Your task to perform on an android device: Open settings on Google Maps Image 0: 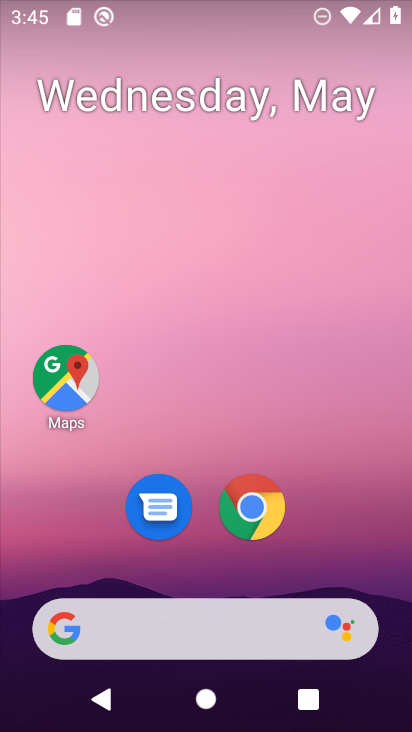
Step 0: click (55, 378)
Your task to perform on an android device: Open settings on Google Maps Image 1: 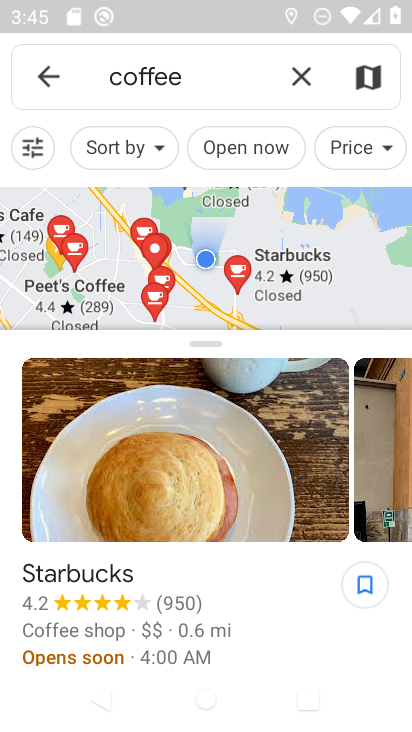
Step 1: click (44, 77)
Your task to perform on an android device: Open settings on Google Maps Image 2: 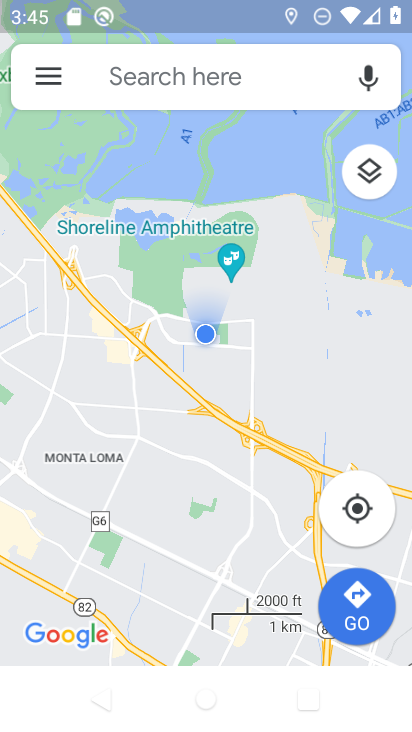
Step 2: click (42, 59)
Your task to perform on an android device: Open settings on Google Maps Image 3: 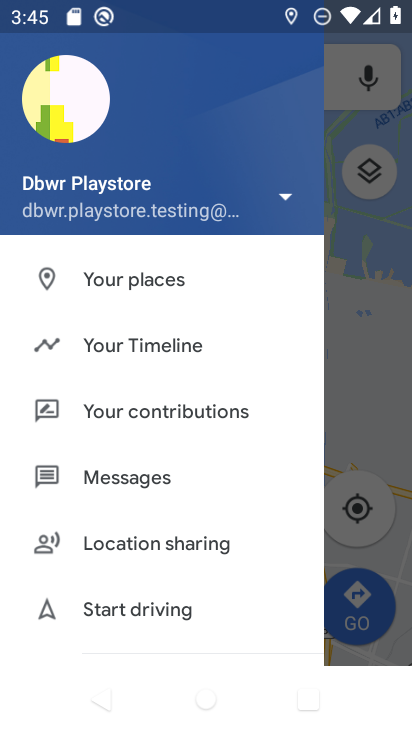
Step 3: drag from (136, 548) to (245, 80)
Your task to perform on an android device: Open settings on Google Maps Image 4: 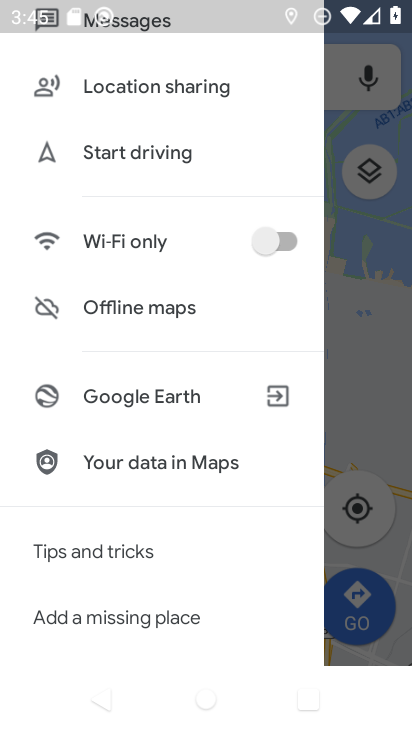
Step 4: drag from (145, 581) to (211, 116)
Your task to perform on an android device: Open settings on Google Maps Image 5: 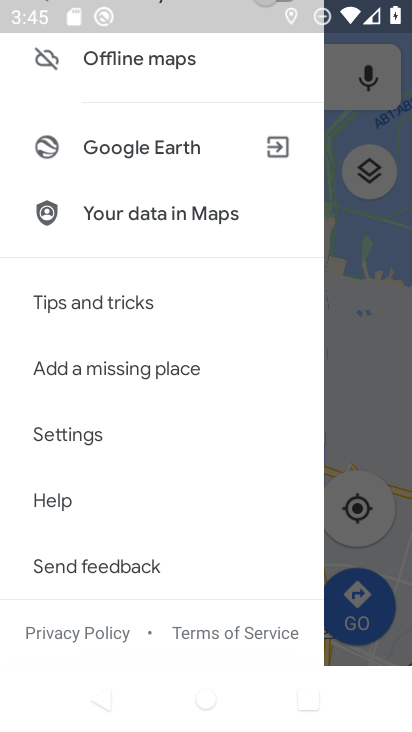
Step 5: click (93, 436)
Your task to perform on an android device: Open settings on Google Maps Image 6: 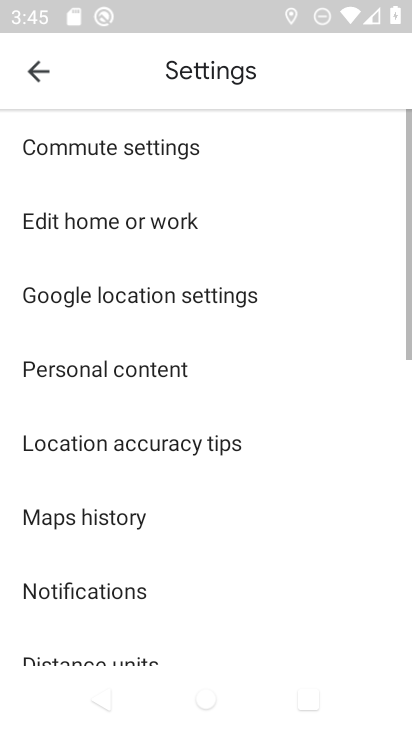
Step 6: task complete